Your task to perform on an android device: turn off airplane mode Image 0: 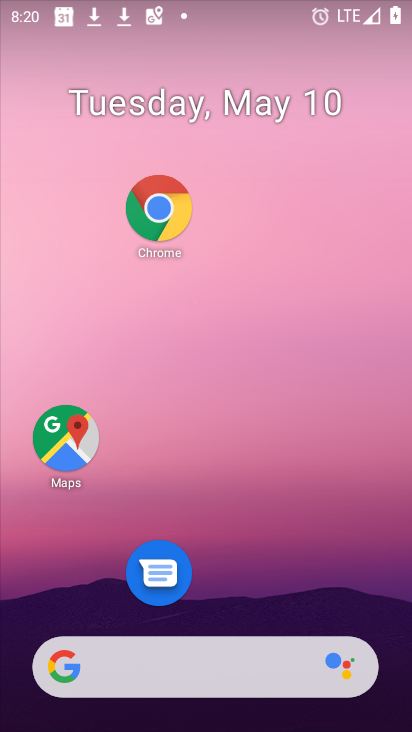
Step 0: drag from (311, 684) to (282, 159)
Your task to perform on an android device: turn off airplane mode Image 1: 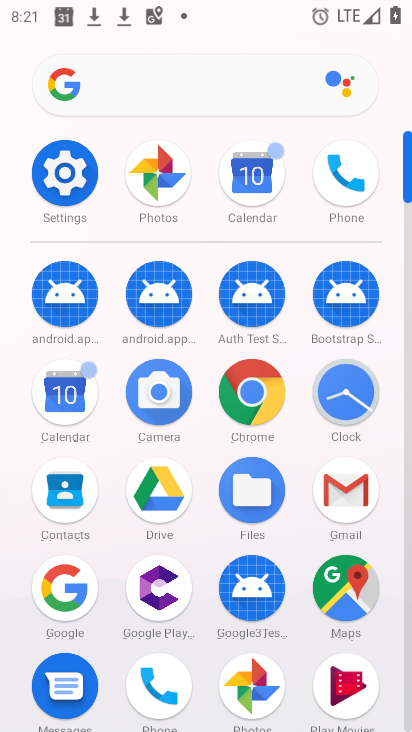
Step 1: click (63, 182)
Your task to perform on an android device: turn off airplane mode Image 2: 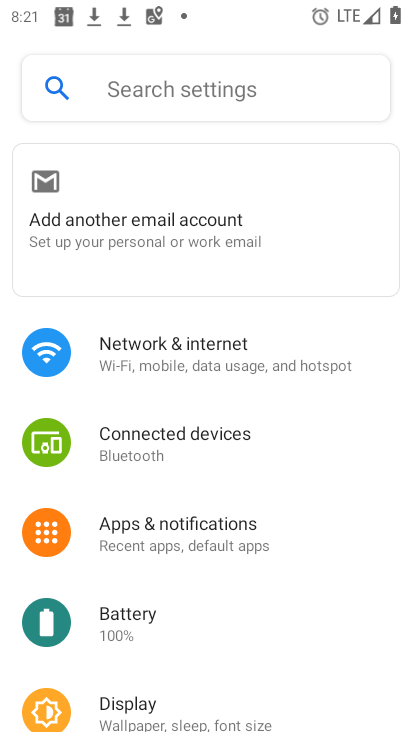
Step 2: click (167, 350)
Your task to perform on an android device: turn off airplane mode Image 3: 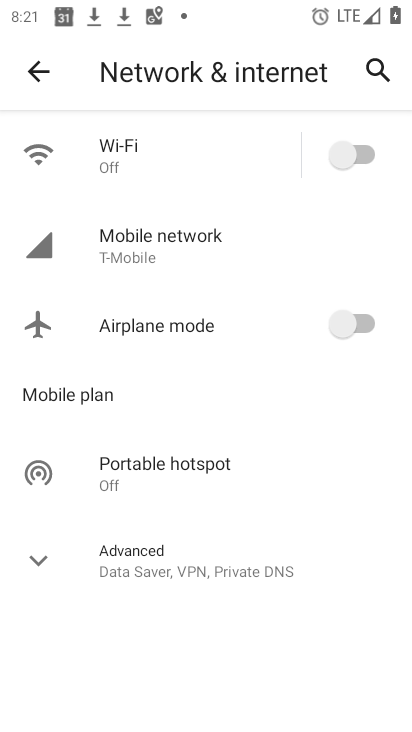
Step 3: click (294, 321)
Your task to perform on an android device: turn off airplane mode Image 4: 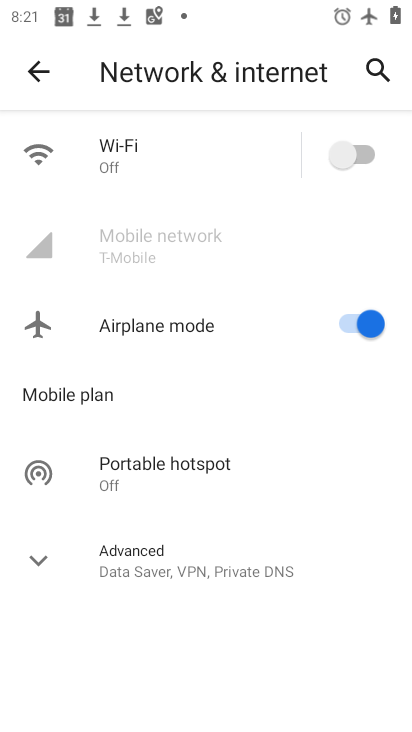
Step 4: click (291, 322)
Your task to perform on an android device: turn off airplane mode Image 5: 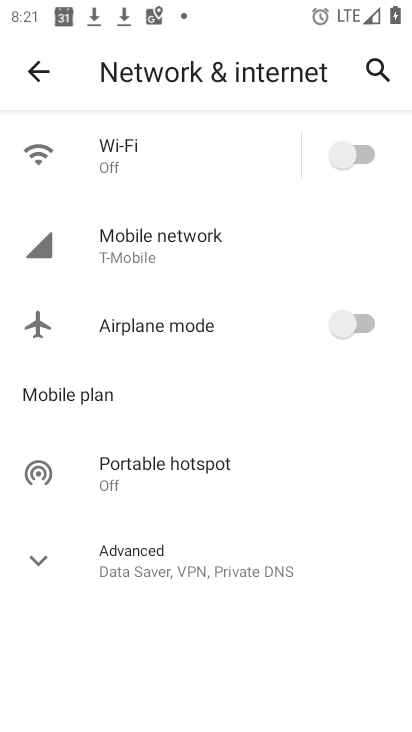
Step 5: task complete